Your task to perform on an android device: show emergency info Image 0: 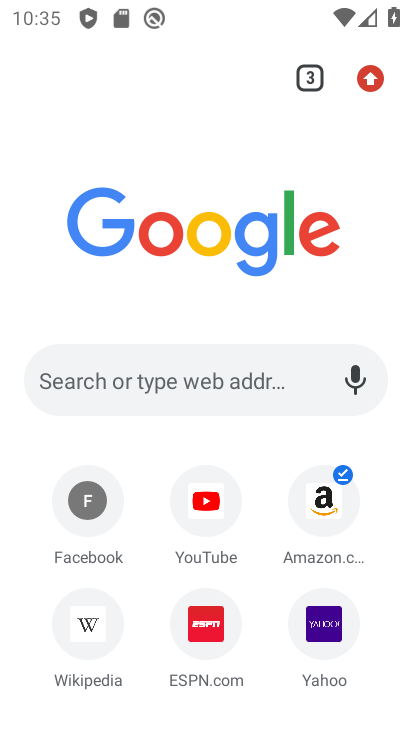
Step 0: press home button
Your task to perform on an android device: show emergency info Image 1: 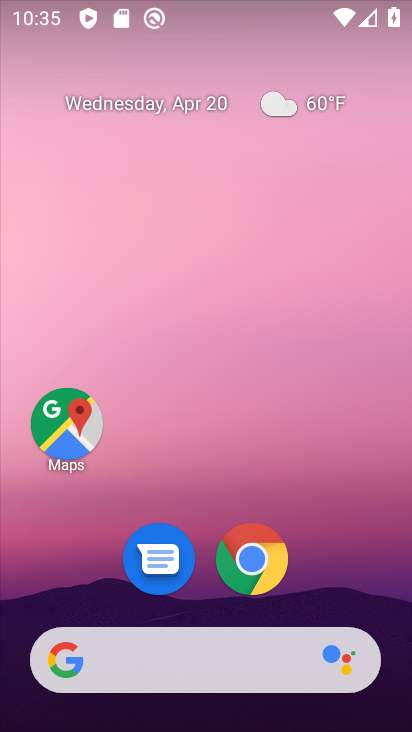
Step 1: drag from (199, 727) to (199, 38)
Your task to perform on an android device: show emergency info Image 2: 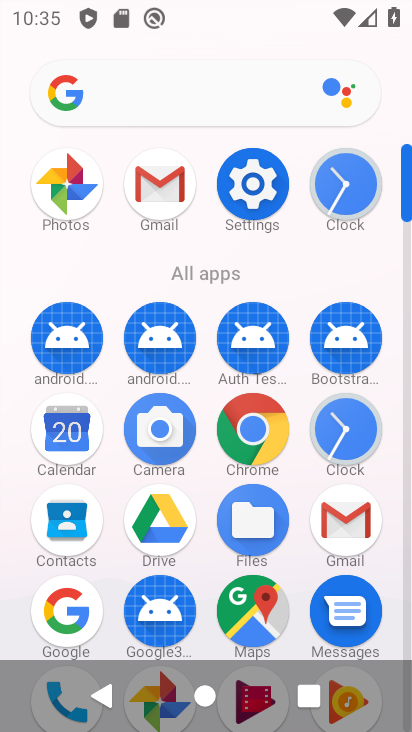
Step 2: click (251, 189)
Your task to perform on an android device: show emergency info Image 3: 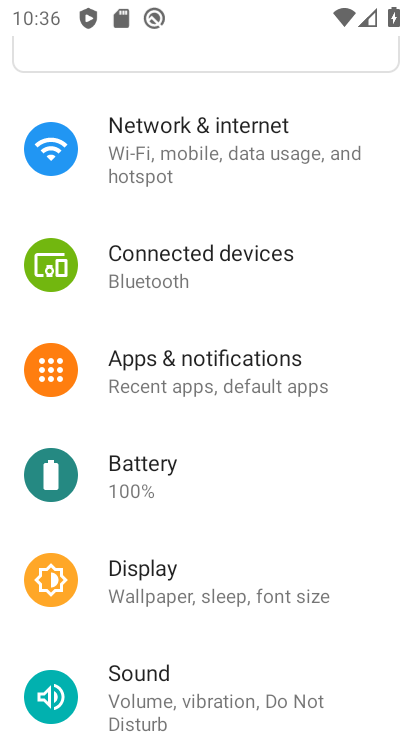
Step 3: drag from (207, 658) to (198, 206)
Your task to perform on an android device: show emergency info Image 4: 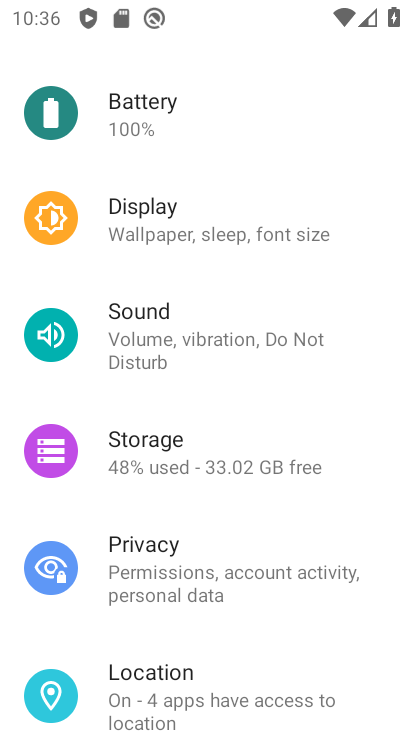
Step 4: drag from (217, 688) to (214, 271)
Your task to perform on an android device: show emergency info Image 5: 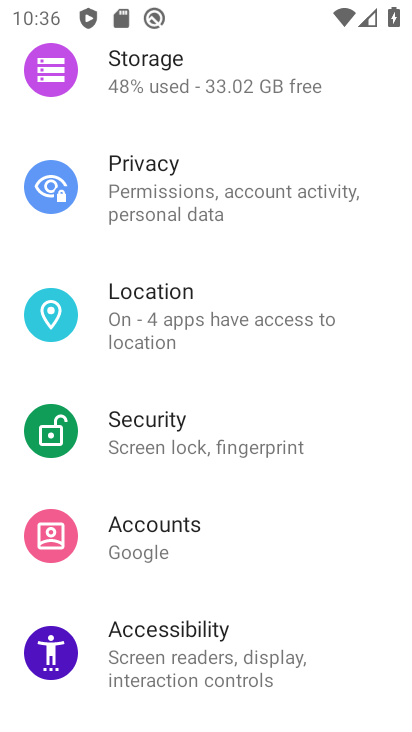
Step 5: drag from (216, 676) to (229, 276)
Your task to perform on an android device: show emergency info Image 6: 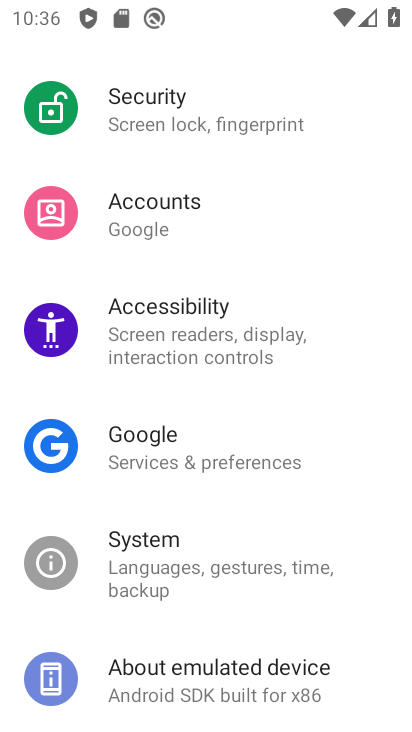
Step 6: click (213, 669)
Your task to perform on an android device: show emergency info Image 7: 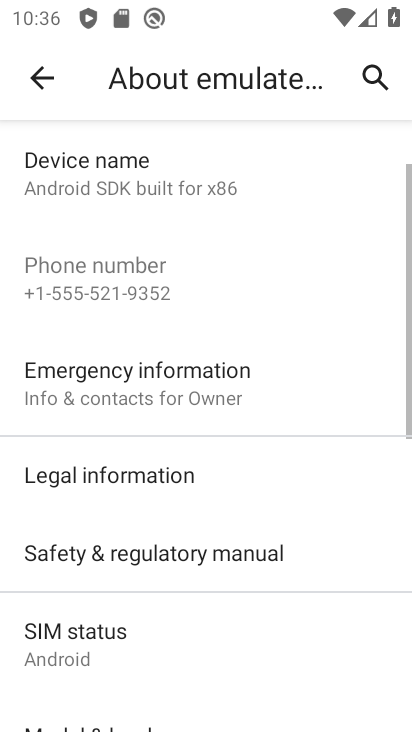
Step 7: drag from (187, 680) to (186, 548)
Your task to perform on an android device: show emergency info Image 8: 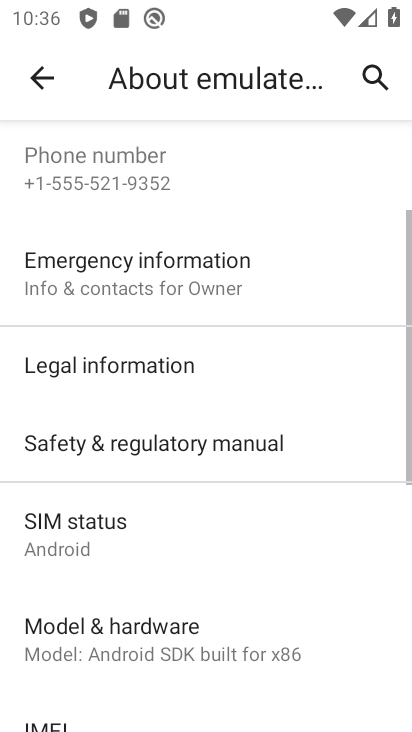
Step 8: click (144, 277)
Your task to perform on an android device: show emergency info Image 9: 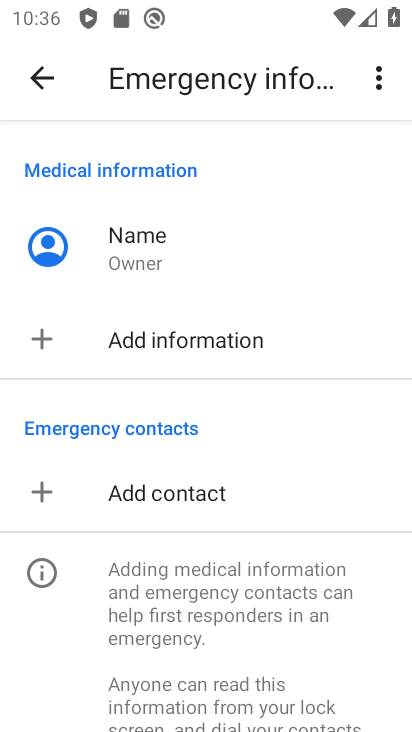
Step 9: task complete